Your task to perform on an android device: Clear the cart on walmart.com. Search for macbook on walmart.com, select the first entry, and add it to the cart. Image 0: 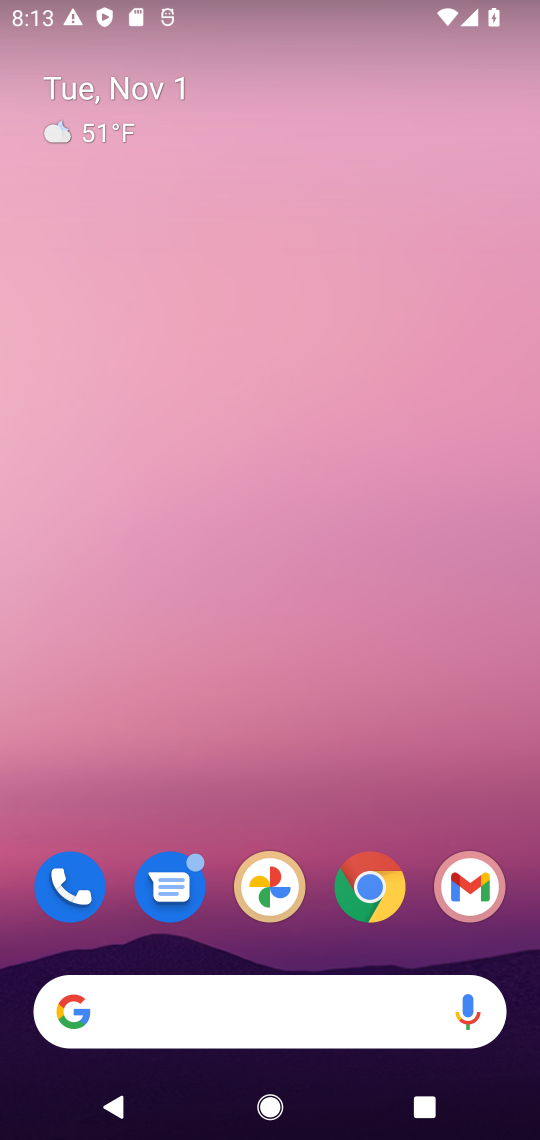
Step 0: drag from (111, 995) to (221, 281)
Your task to perform on an android device: Clear the cart on walmart.com. Search for macbook on walmart.com, select the first entry, and add it to the cart. Image 1: 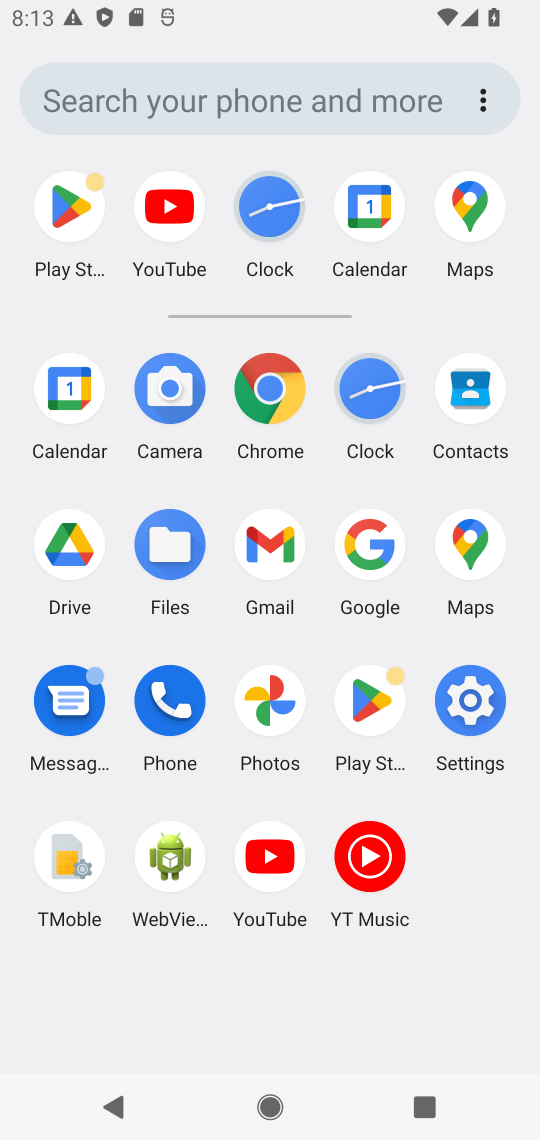
Step 1: click (363, 537)
Your task to perform on an android device: Clear the cart on walmart.com. Search for macbook on walmart.com, select the first entry, and add it to the cart. Image 2: 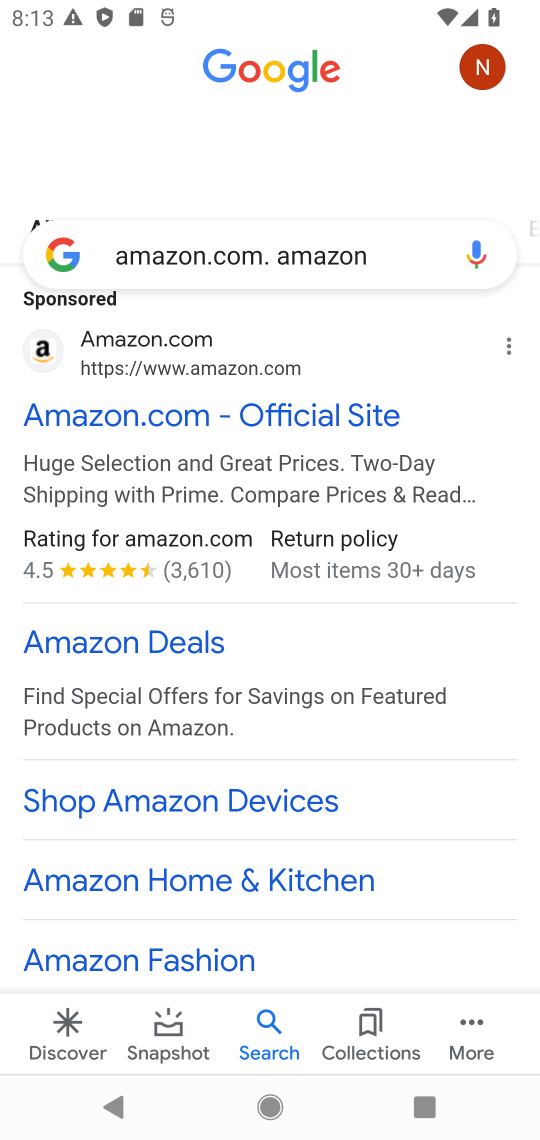
Step 2: click (285, 256)
Your task to perform on an android device: Clear the cart on walmart.com. Search for macbook on walmart.com, select the first entry, and add it to the cart. Image 3: 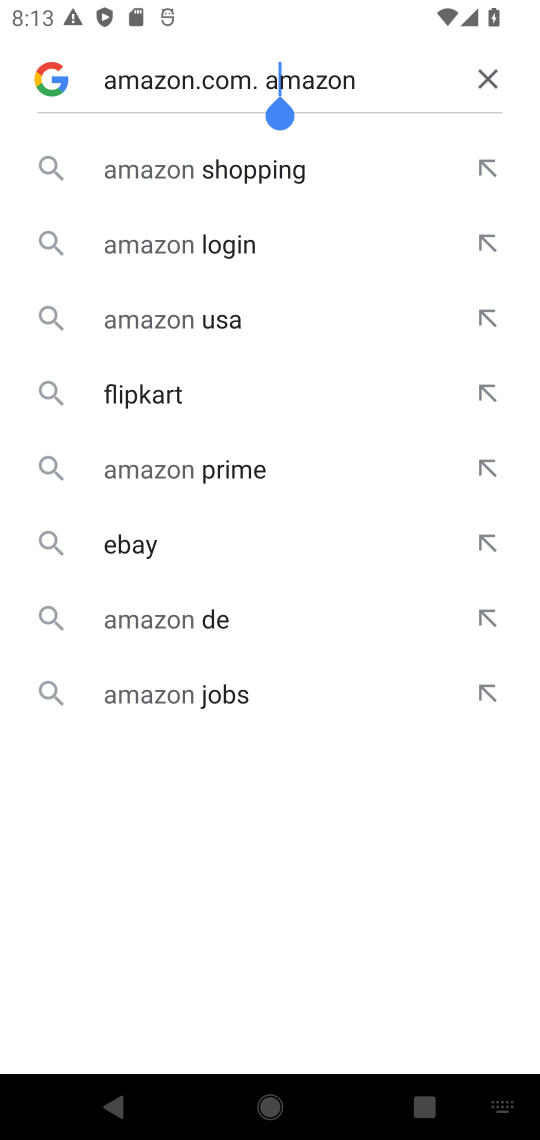
Step 3: click (475, 82)
Your task to perform on an android device: Clear the cart on walmart.com. Search for macbook on walmart.com, select the first entry, and add it to the cart. Image 4: 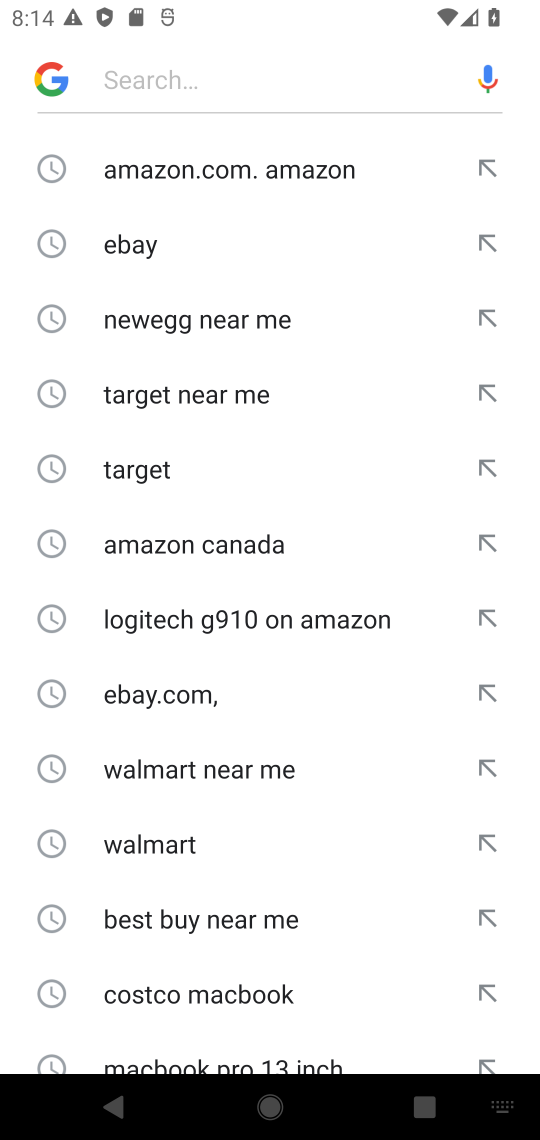
Step 4: click (165, 67)
Your task to perform on an android device: Clear the cart on walmart.com. Search for macbook on walmart.com, select the first entry, and add it to the cart. Image 5: 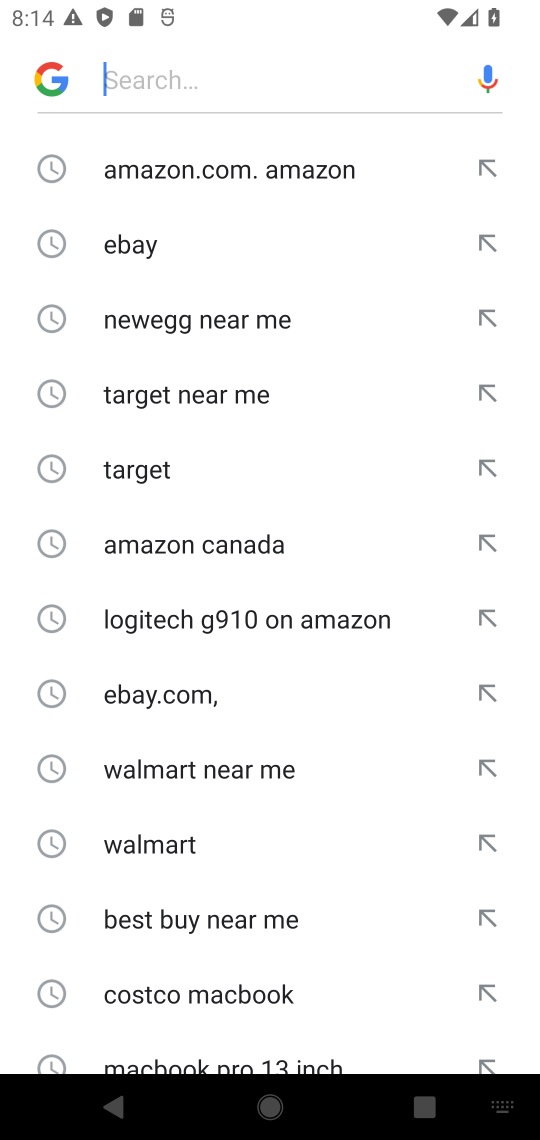
Step 5: type "walmart "
Your task to perform on an android device: Clear the cart on walmart.com. Search for macbook on walmart.com, select the first entry, and add it to the cart. Image 6: 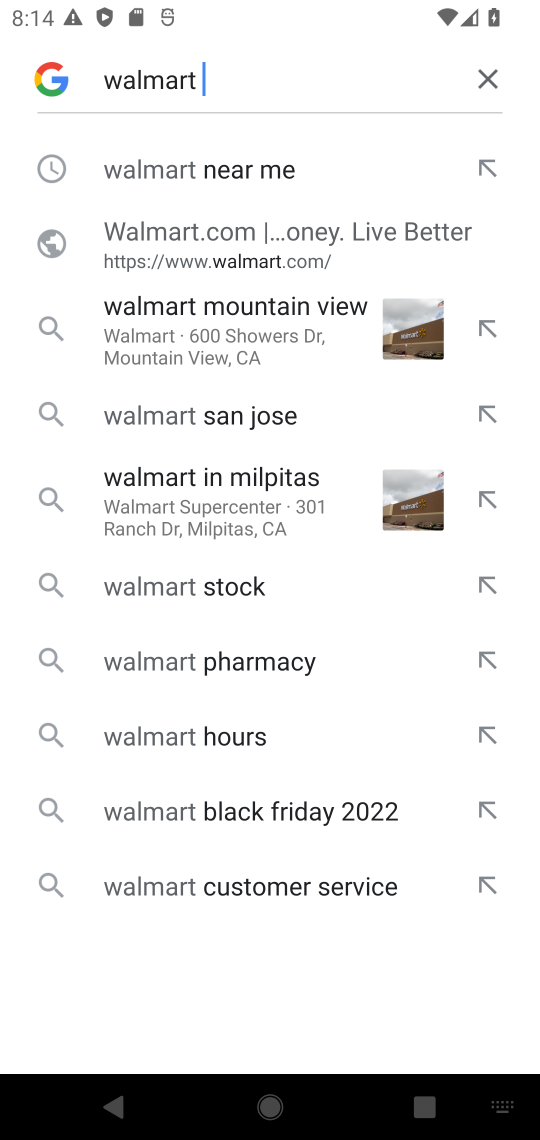
Step 6: click (159, 174)
Your task to perform on an android device: Clear the cart on walmart.com. Search for macbook on walmart.com, select the first entry, and add it to the cart. Image 7: 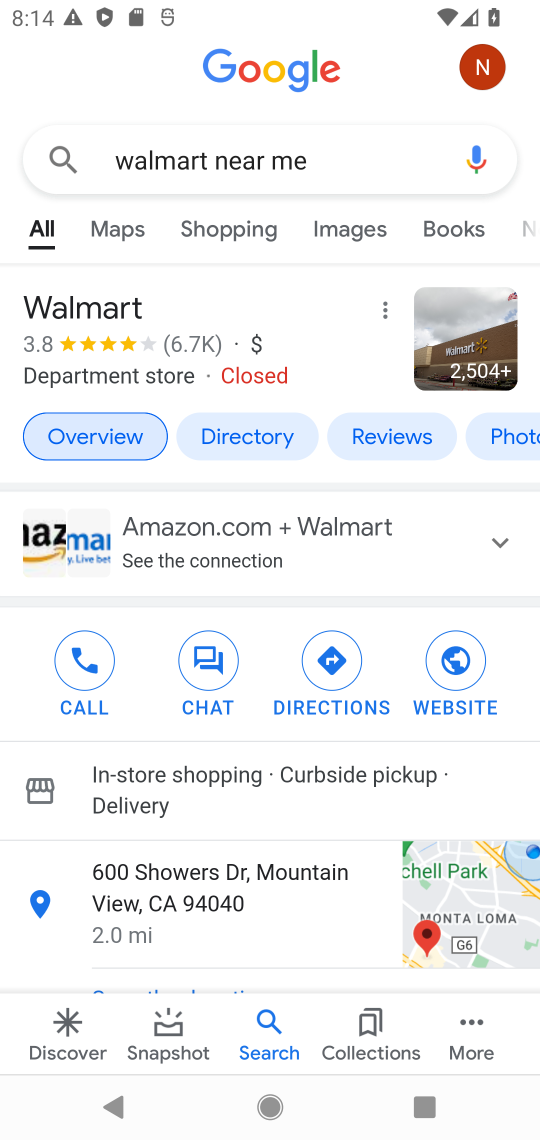
Step 7: drag from (281, 972) to (305, 358)
Your task to perform on an android device: Clear the cart on walmart.com. Search for macbook on walmart.com, select the first entry, and add it to the cart. Image 8: 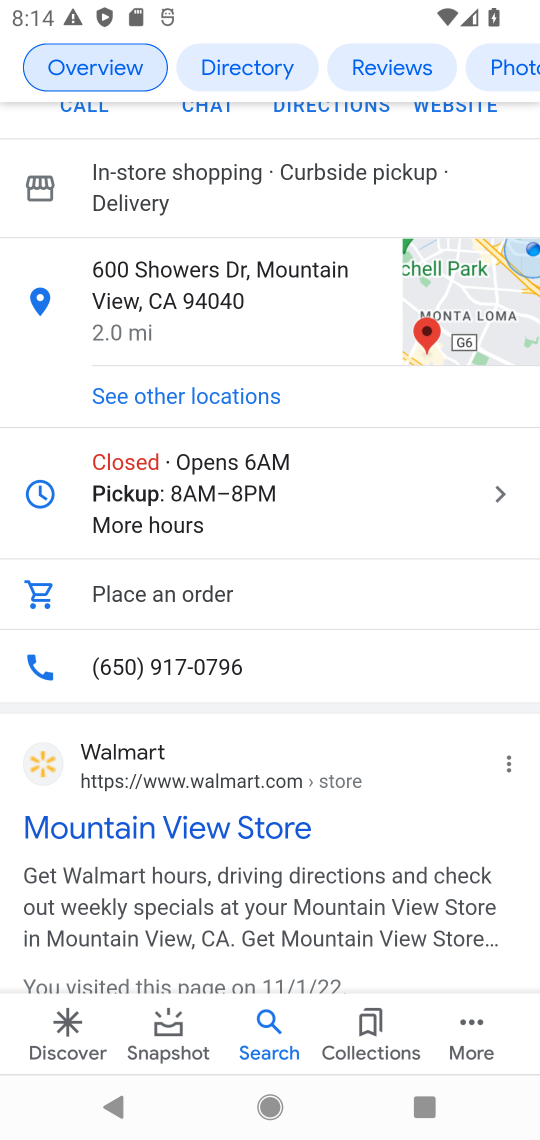
Step 8: click (44, 756)
Your task to perform on an android device: Clear the cart on walmart.com. Search for macbook on walmart.com, select the first entry, and add it to the cart. Image 9: 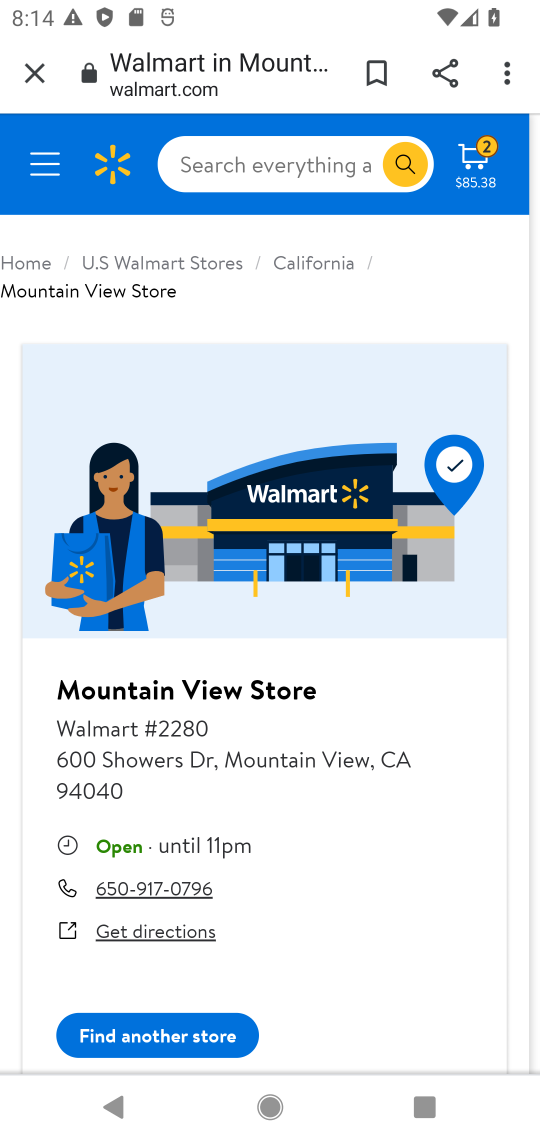
Step 9: click (239, 158)
Your task to perform on an android device: Clear the cart on walmart.com. Search for macbook on walmart.com, select the first entry, and add it to the cart. Image 10: 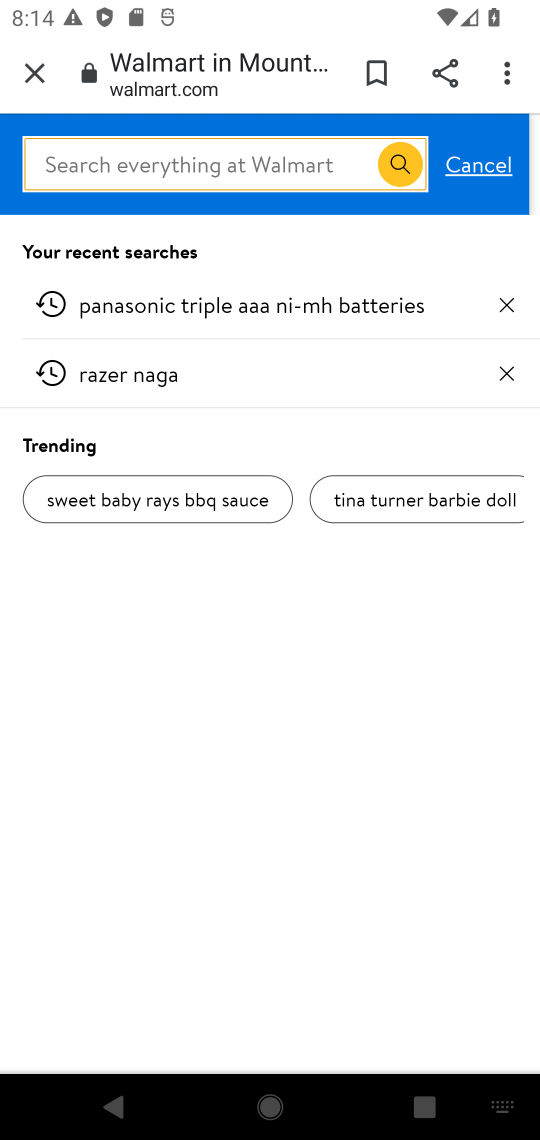
Step 10: click (202, 167)
Your task to perform on an android device: Clear the cart on walmart.com. Search for macbook on walmart.com, select the first entry, and add it to the cart. Image 11: 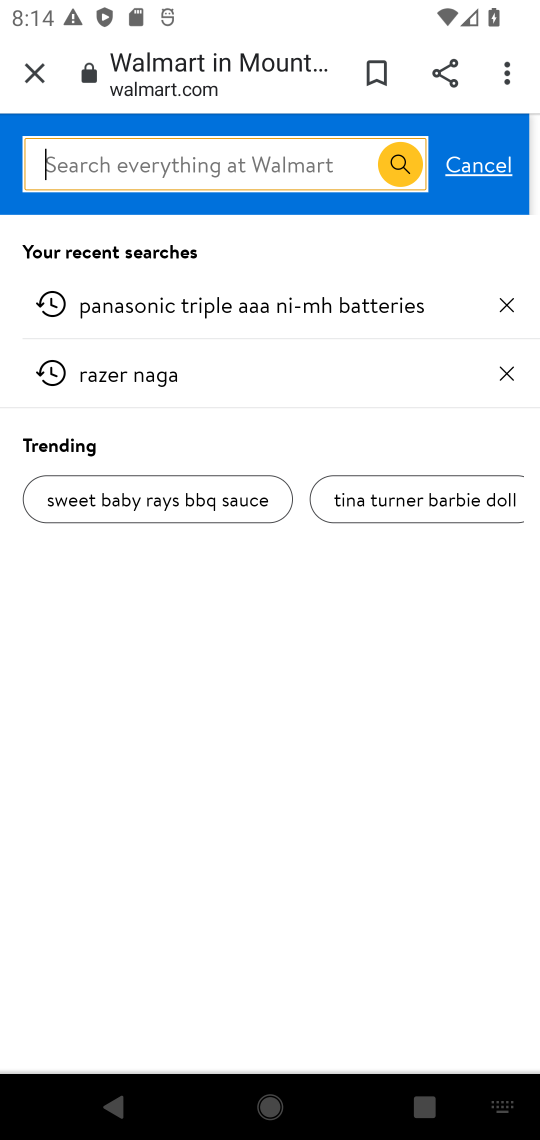
Step 11: type " macbook  "
Your task to perform on an android device: Clear the cart on walmart.com. Search for macbook on walmart.com, select the first entry, and add it to the cart. Image 12: 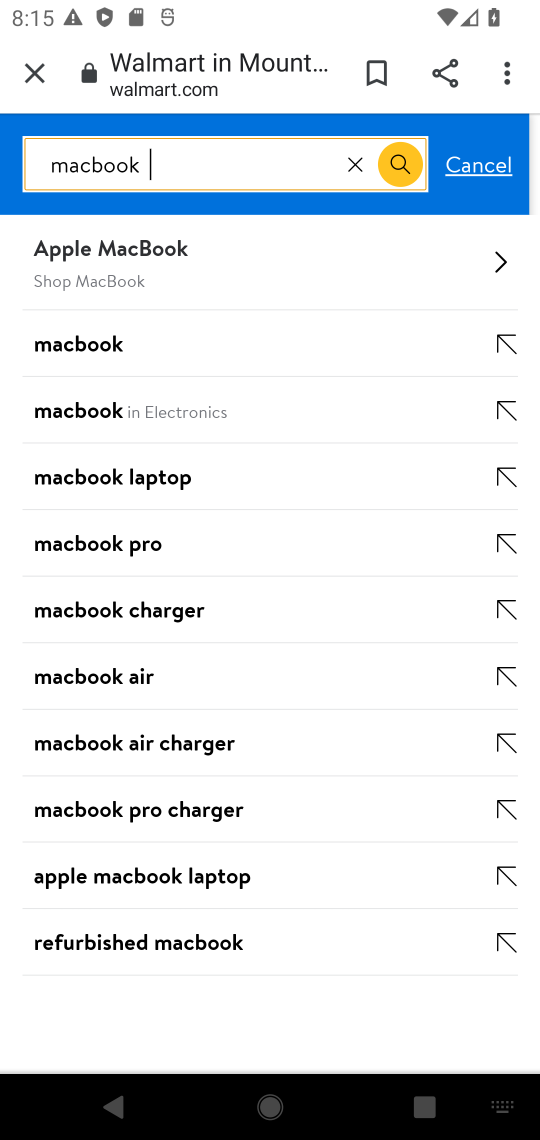
Step 12: click (221, 267)
Your task to perform on an android device: Clear the cart on walmart.com. Search for macbook on walmart.com, select the first entry, and add it to the cart. Image 13: 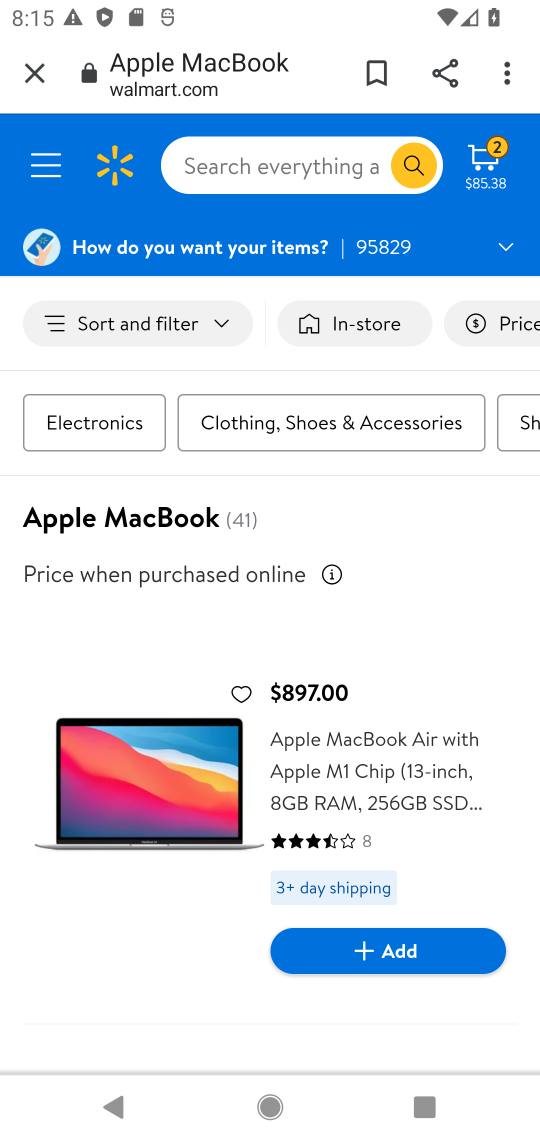
Step 13: click (399, 947)
Your task to perform on an android device: Clear the cart on walmart.com. Search for macbook on walmart.com, select the first entry, and add it to the cart. Image 14: 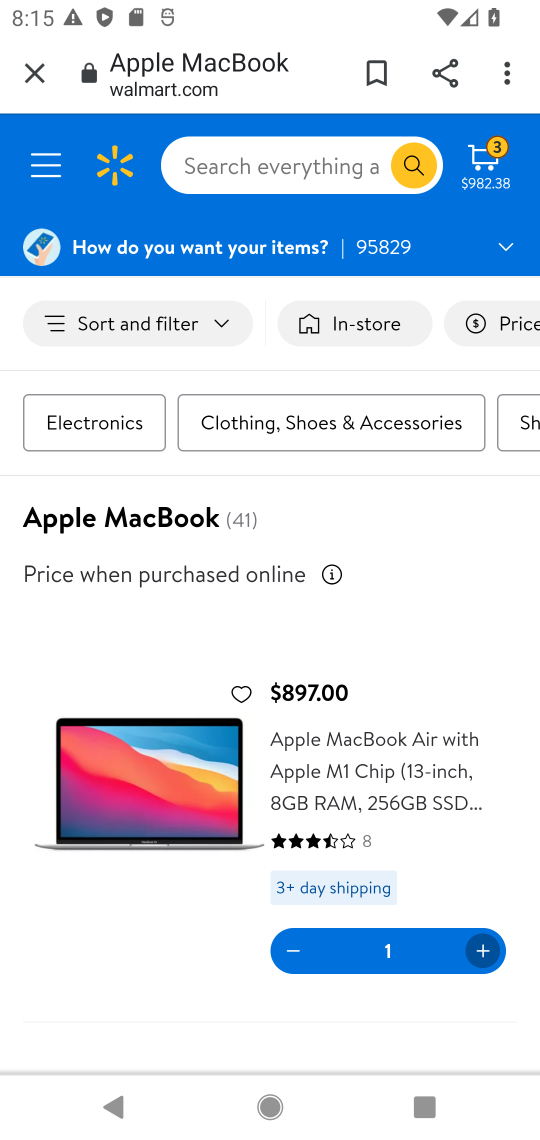
Step 14: task complete